Your task to perform on an android device: turn vacation reply on in the gmail app Image 0: 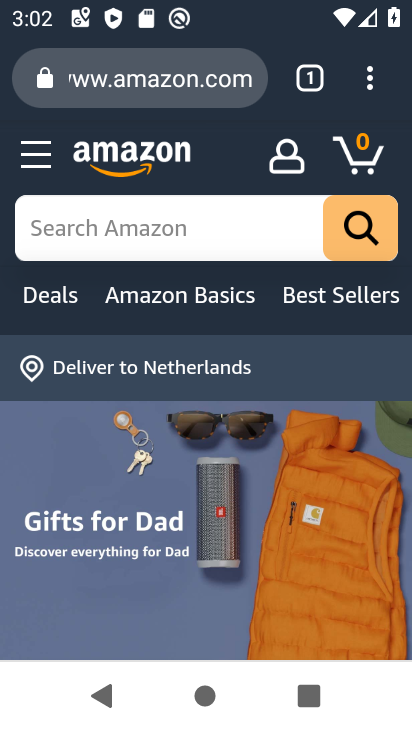
Step 0: press home button
Your task to perform on an android device: turn vacation reply on in the gmail app Image 1: 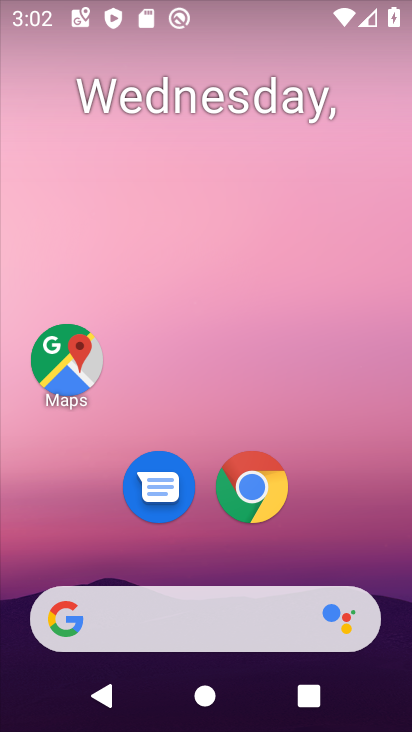
Step 1: drag from (319, 507) to (334, 16)
Your task to perform on an android device: turn vacation reply on in the gmail app Image 2: 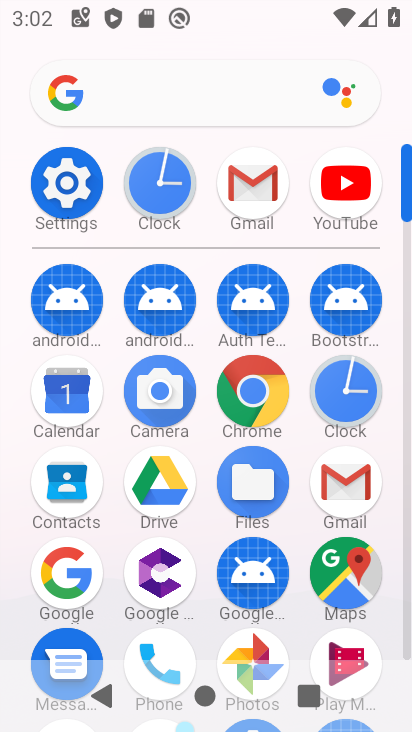
Step 2: click (251, 227)
Your task to perform on an android device: turn vacation reply on in the gmail app Image 3: 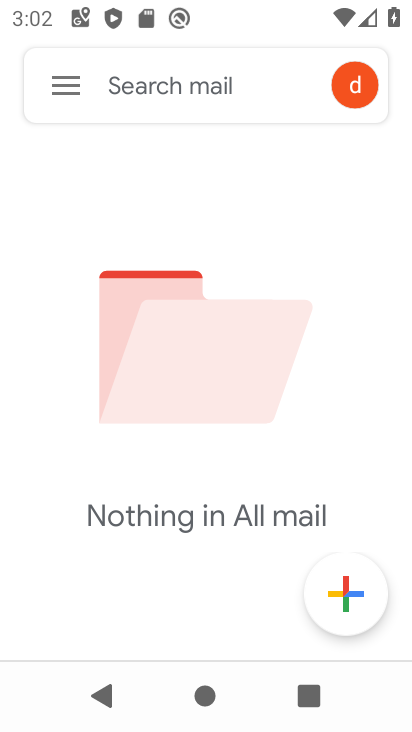
Step 3: click (64, 87)
Your task to perform on an android device: turn vacation reply on in the gmail app Image 4: 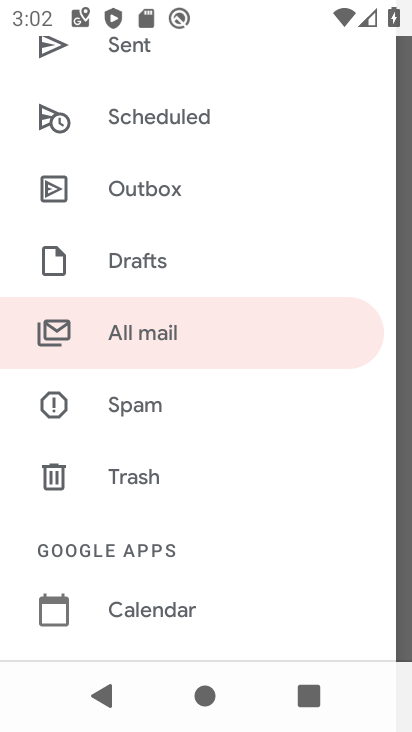
Step 4: drag from (204, 465) to (232, 169)
Your task to perform on an android device: turn vacation reply on in the gmail app Image 5: 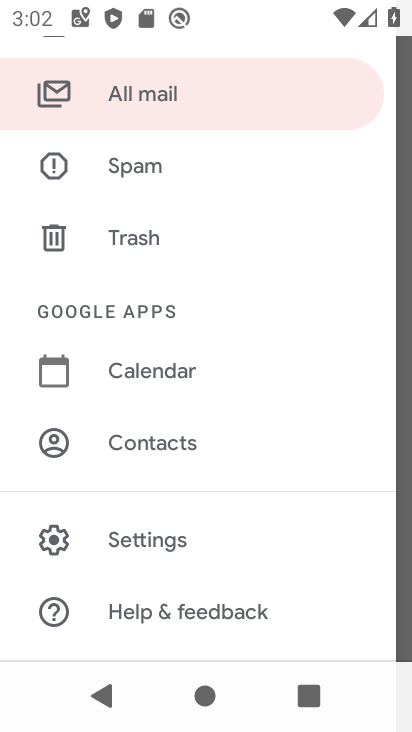
Step 5: click (188, 540)
Your task to perform on an android device: turn vacation reply on in the gmail app Image 6: 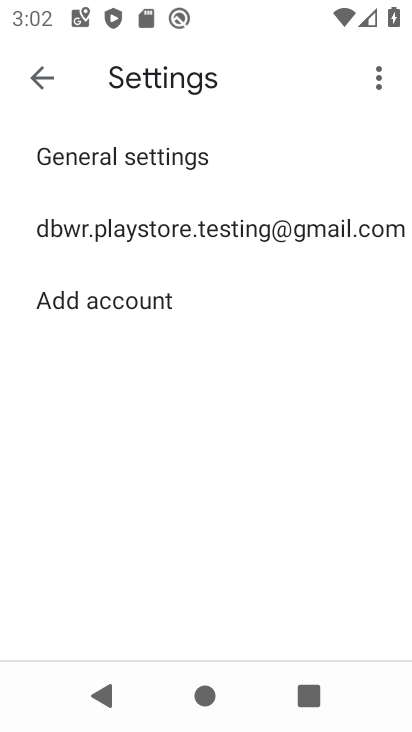
Step 6: click (269, 232)
Your task to perform on an android device: turn vacation reply on in the gmail app Image 7: 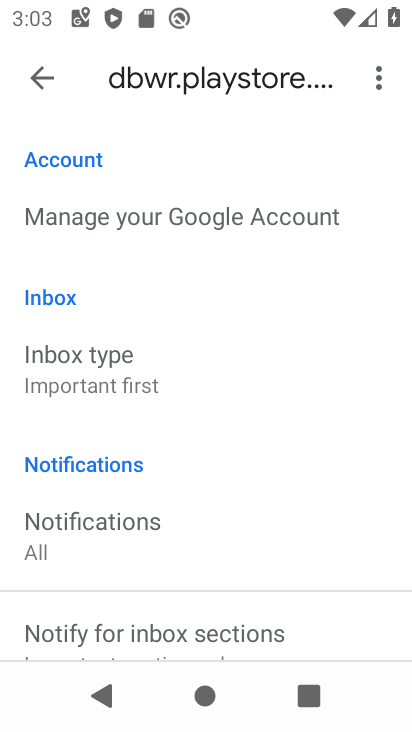
Step 7: drag from (221, 539) to (219, 101)
Your task to perform on an android device: turn vacation reply on in the gmail app Image 8: 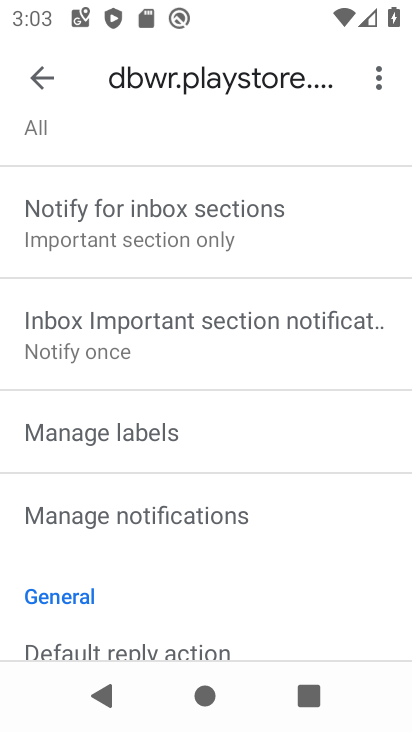
Step 8: drag from (238, 457) to (266, 113)
Your task to perform on an android device: turn vacation reply on in the gmail app Image 9: 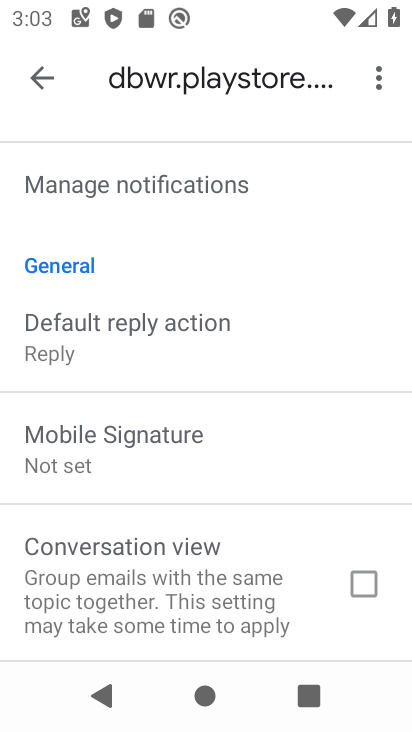
Step 9: drag from (256, 475) to (270, 85)
Your task to perform on an android device: turn vacation reply on in the gmail app Image 10: 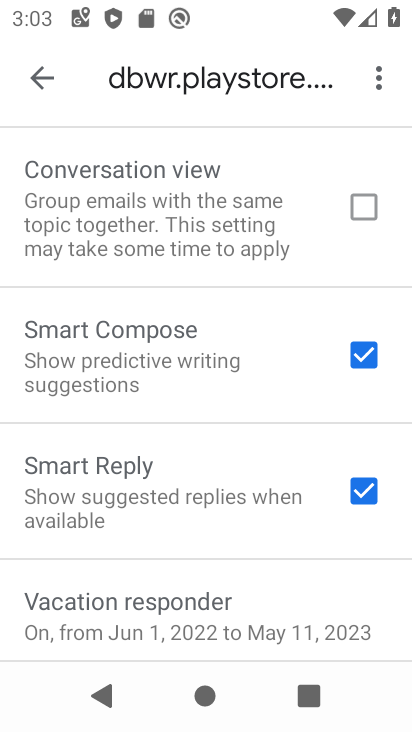
Step 10: drag from (223, 530) to (237, 352)
Your task to perform on an android device: turn vacation reply on in the gmail app Image 11: 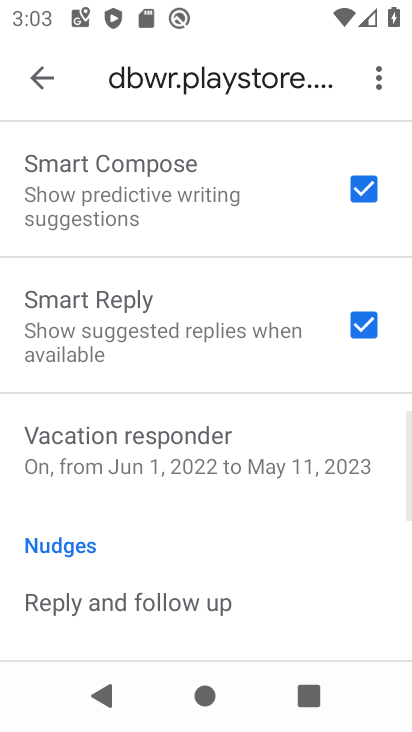
Step 11: click (224, 443)
Your task to perform on an android device: turn vacation reply on in the gmail app Image 12: 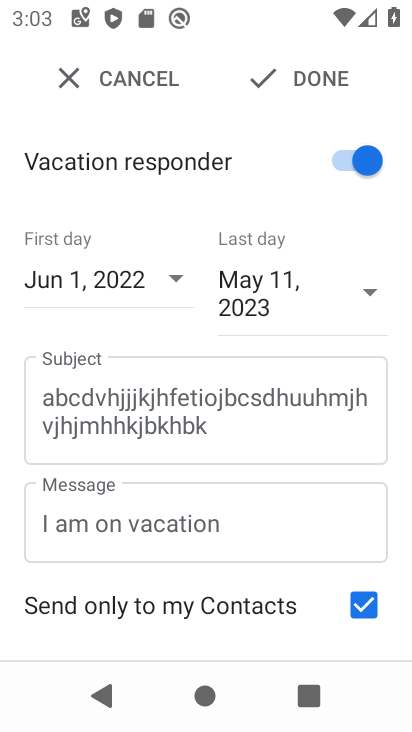
Step 12: task complete